Your task to perform on an android device: delete browsing data in the chrome app Image 0: 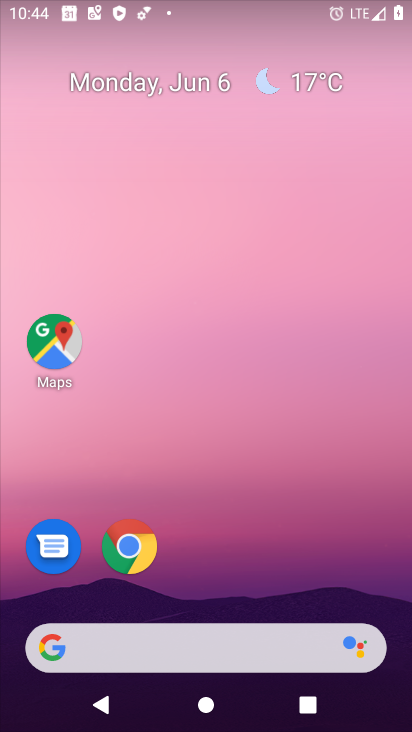
Step 0: drag from (226, 579) to (297, 35)
Your task to perform on an android device: delete browsing data in the chrome app Image 1: 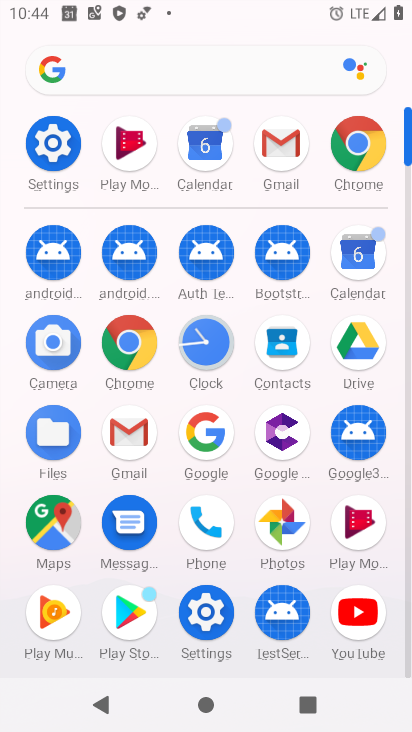
Step 1: click (138, 356)
Your task to perform on an android device: delete browsing data in the chrome app Image 2: 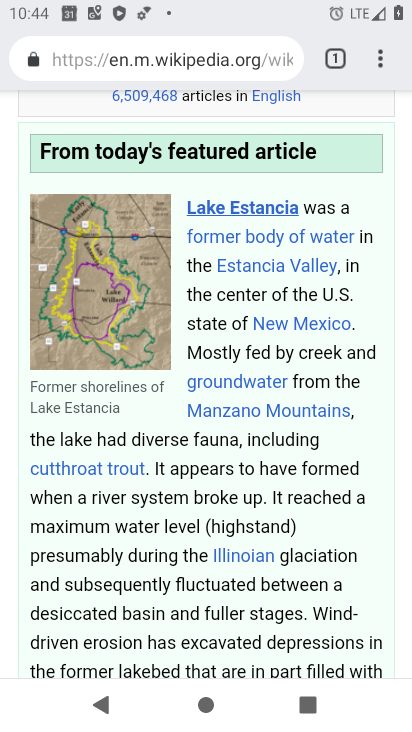
Step 2: click (377, 57)
Your task to perform on an android device: delete browsing data in the chrome app Image 3: 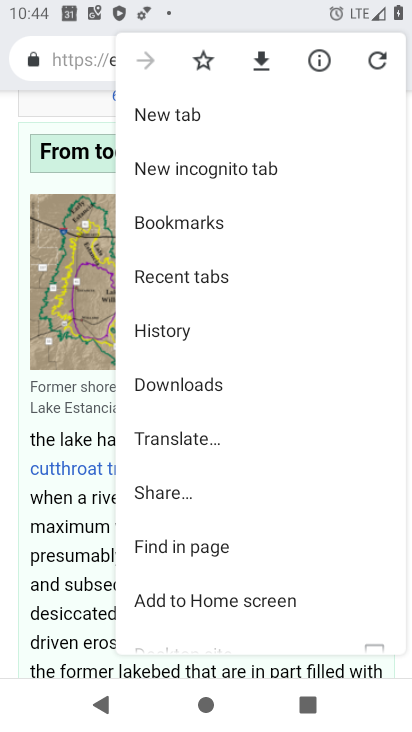
Step 3: click (178, 329)
Your task to perform on an android device: delete browsing data in the chrome app Image 4: 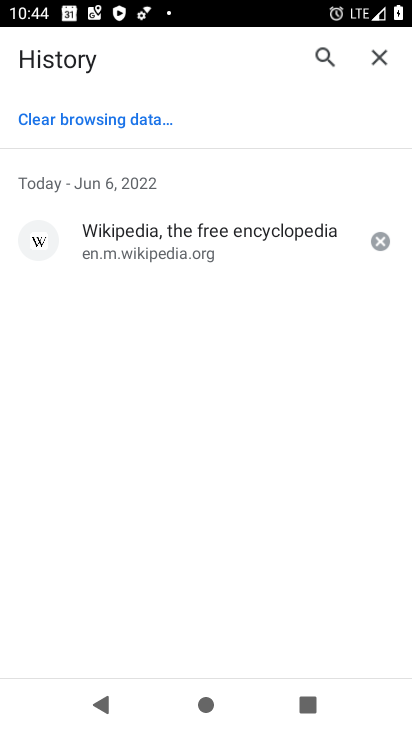
Step 4: click (97, 115)
Your task to perform on an android device: delete browsing data in the chrome app Image 5: 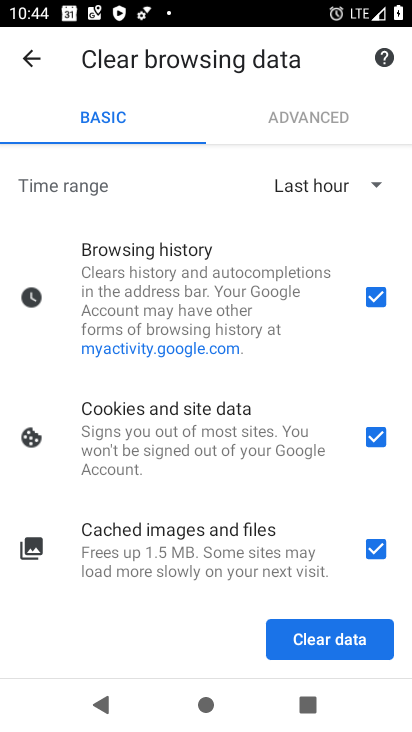
Step 5: click (346, 638)
Your task to perform on an android device: delete browsing data in the chrome app Image 6: 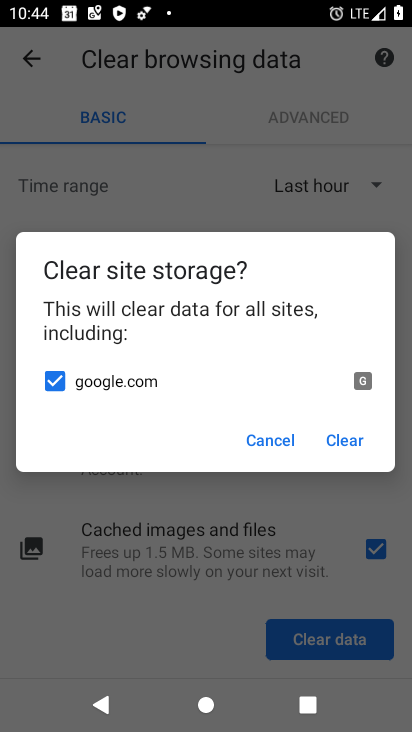
Step 6: click (343, 439)
Your task to perform on an android device: delete browsing data in the chrome app Image 7: 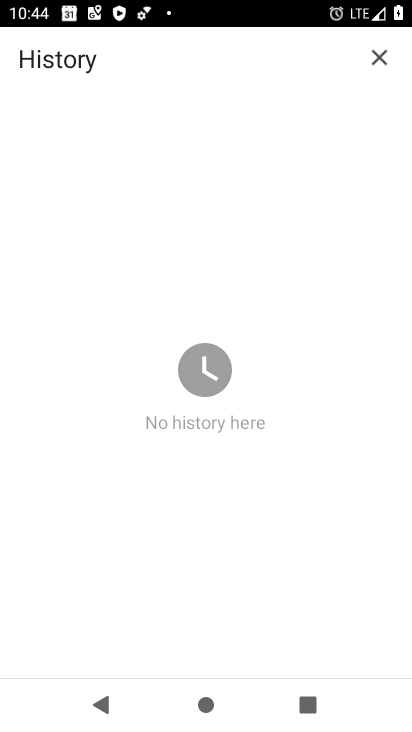
Step 7: task complete